Your task to perform on an android device: turn off smart reply in the gmail app Image 0: 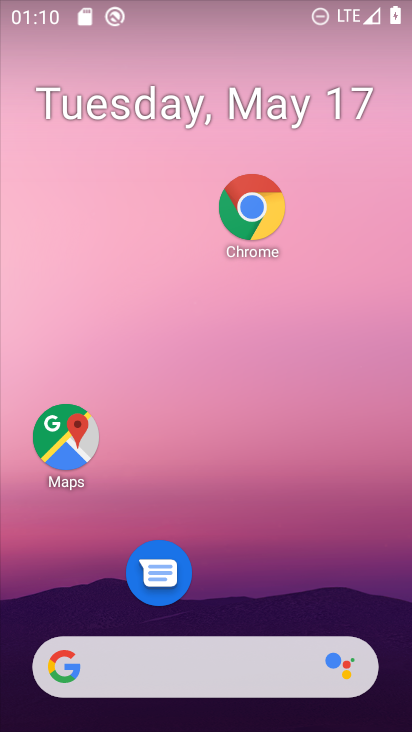
Step 0: drag from (239, 648) to (256, 8)
Your task to perform on an android device: turn off smart reply in the gmail app Image 1: 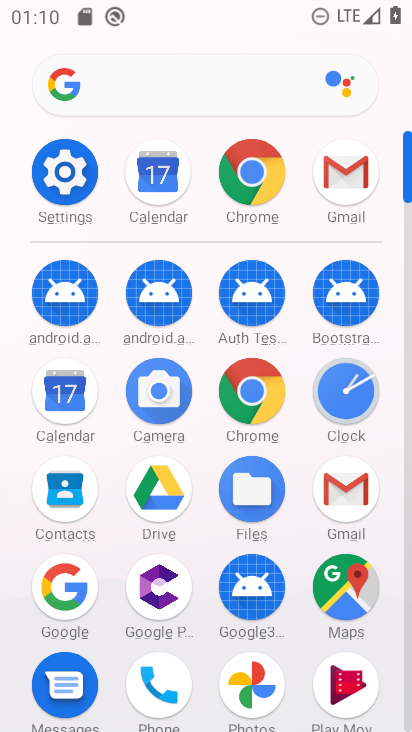
Step 1: click (362, 491)
Your task to perform on an android device: turn off smart reply in the gmail app Image 2: 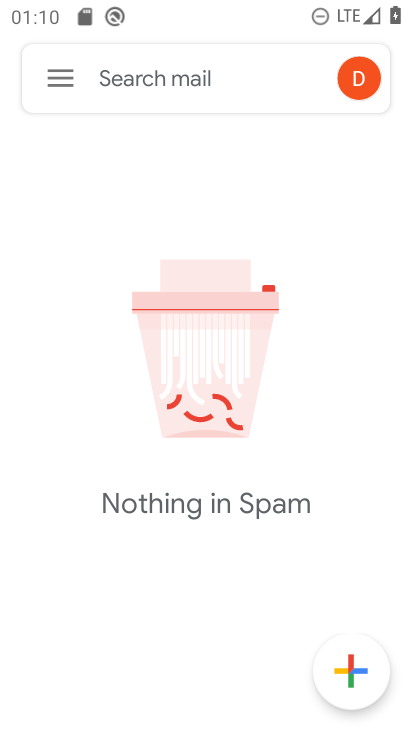
Step 2: click (49, 63)
Your task to perform on an android device: turn off smart reply in the gmail app Image 3: 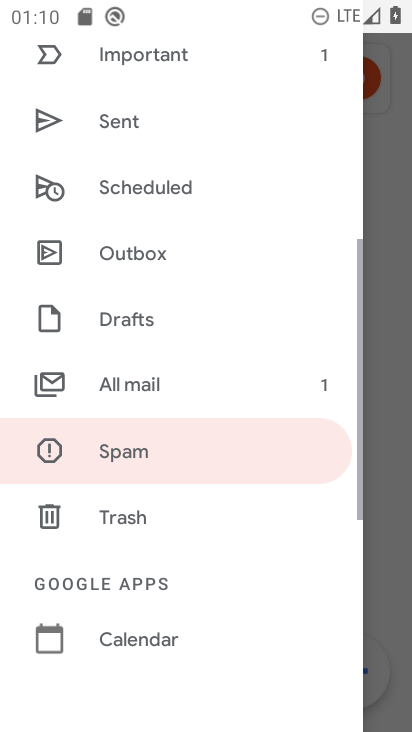
Step 3: drag from (213, 671) to (193, 71)
Your task to perform on an android device: turn off smart reply in the gmail app Image 4: 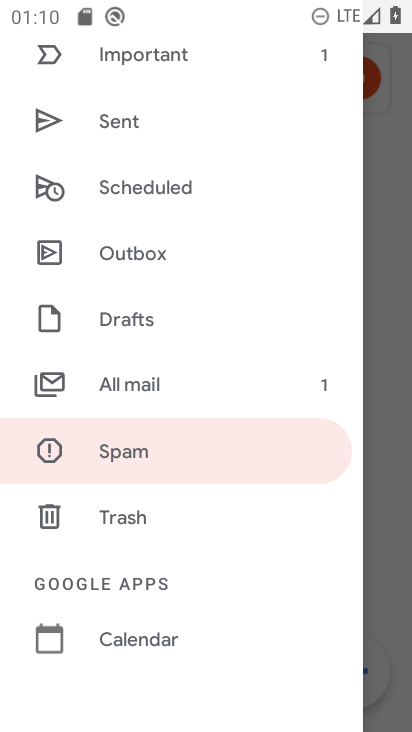
Step 4: drag from (168, 622) to (172, 146)
Your task to perform on an android device: turn off smart reply in the gmail app Image 5: 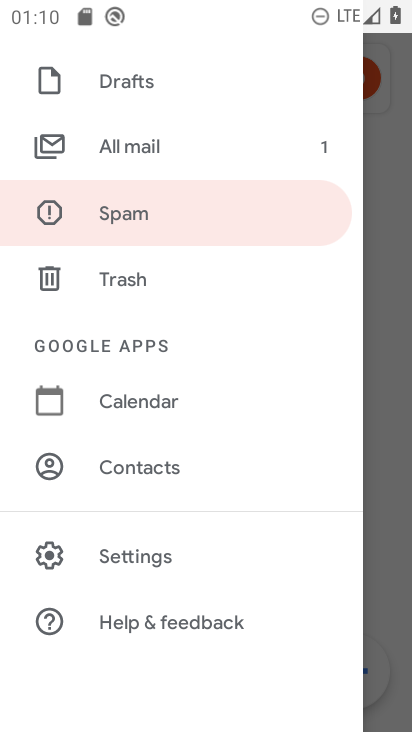
Step 5: click (163, 547)
Your task to perform on an android device: turn off smart reply in the gmail app Image 6: 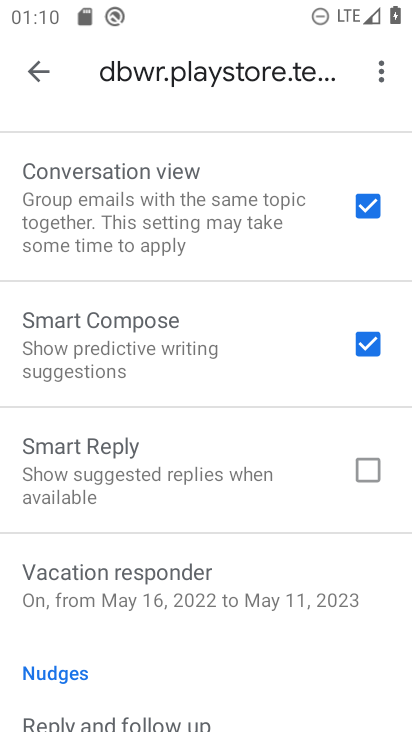
Step 6: task complete